Your task to perform on an android device: turn pop-ups on in chrome Image 0: 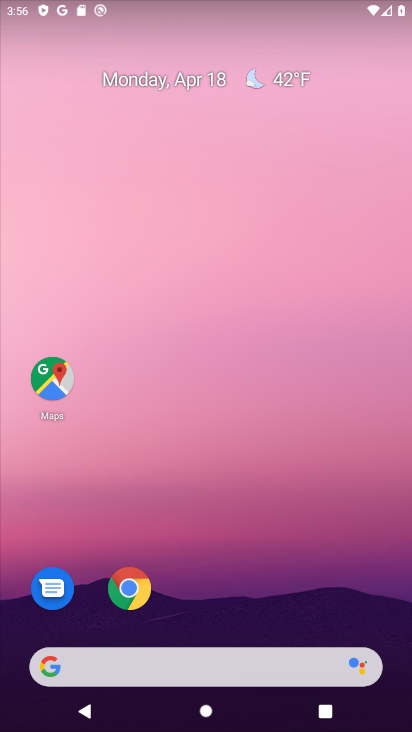
Step 0: click (132, 598)
Your task to perform on an android device: turn pop-ups on in chrome Image 1: 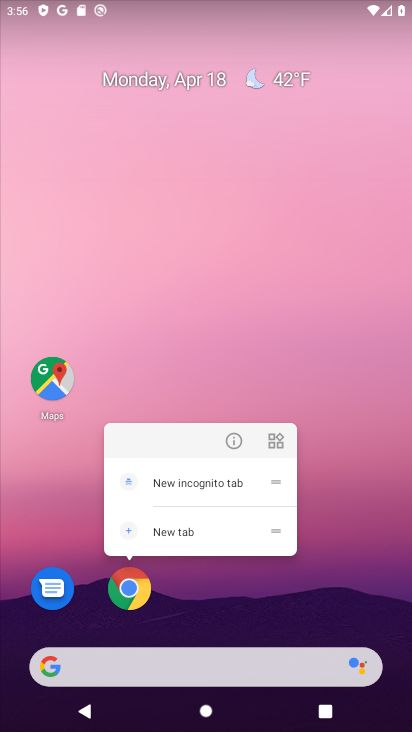
Step 1: click (129, 604)
Your task to perform on an android device: turn pop-ups on in chrome Image 2: 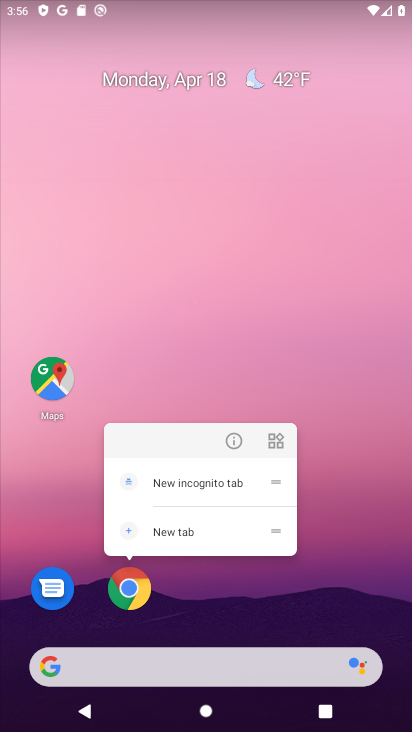
Step 2: click (129, 604)
Your task to perform on an android device: turn pop-ups on in chrome Image 3: 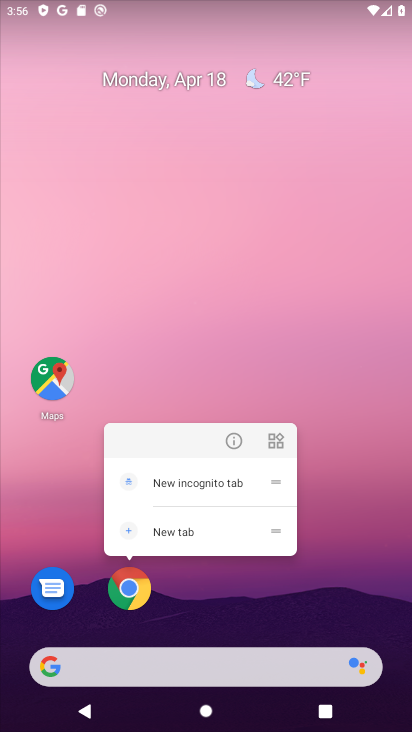
Step 3: click (127, 599)
Your task to perform on an android device: turn pop-ups on in chrome Image 4: 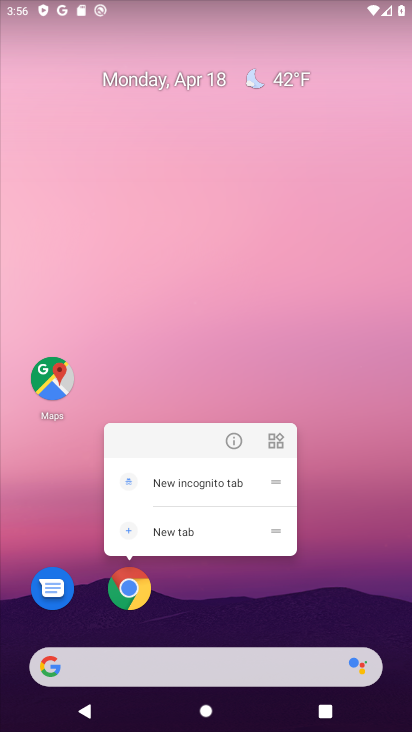
Step 4: click (127, 599)
Your task to perform on an android device: turn pop-ups on in chrome Image 5: 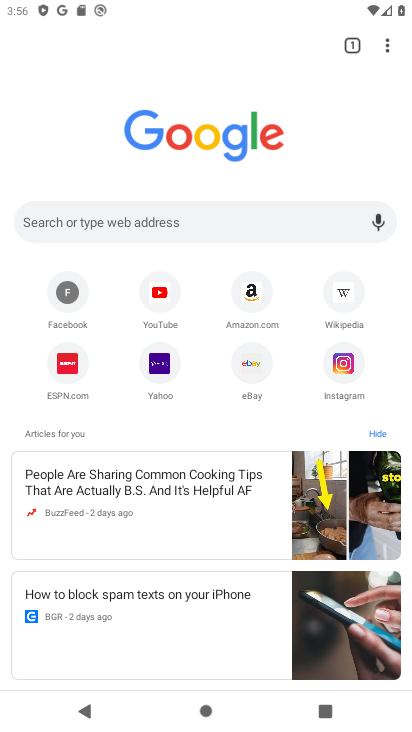
Step 5: drag from (390, 51) to (340, 127)
Your task to perform on an android device: turn pop-ups on in chrome Image 6: 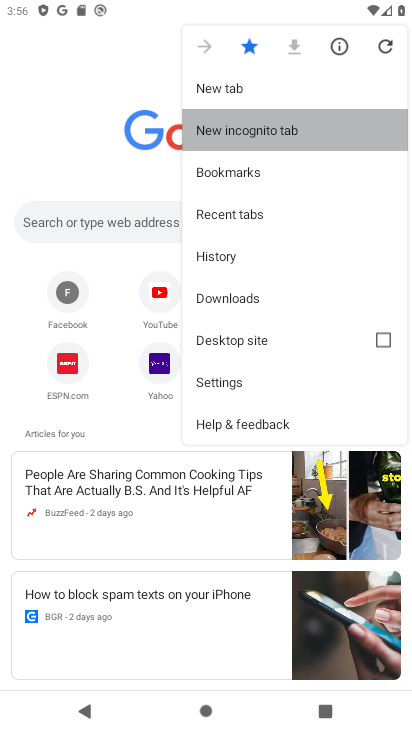
Step 6: drag from (289, 278) to (289, 376)
Your task to perform on an android device: turn pop-ups on in chrome Image 7: 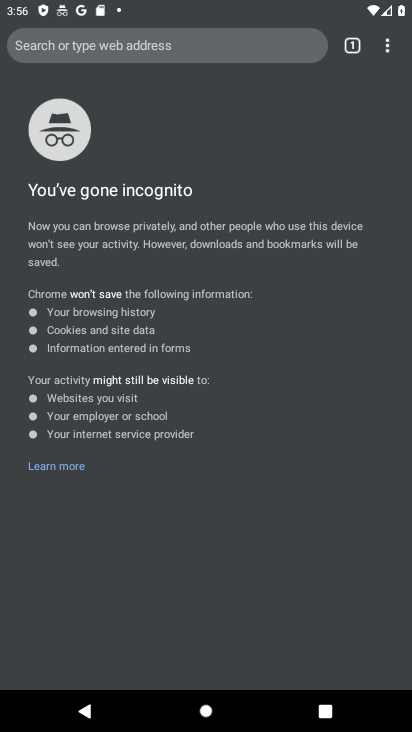
Step 7: click (389, 49)
Your task to perform on an android device: turn pop-ups on in chrome Image 8: 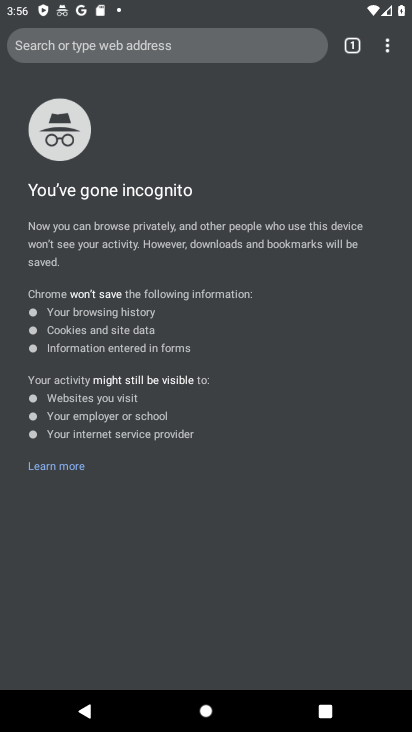
Step 8: drag from (385, 51) to (270, 347)
Your task to perform on an android device: turn pop-ups on in chrome Image 9: 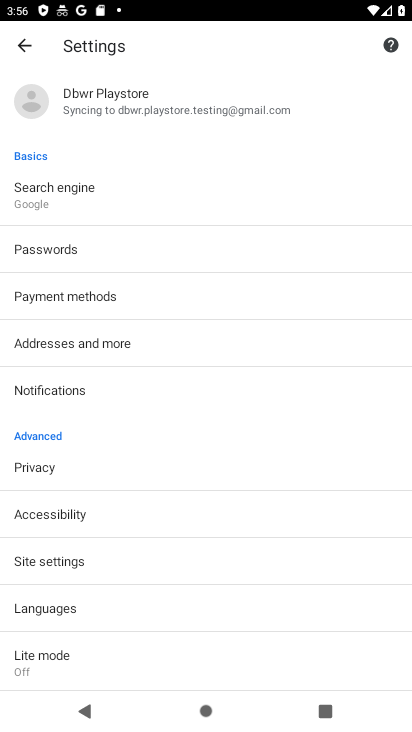
Step 9: click (70, 556)
Your task to perform on an android device: turn pop-ups on in chrome Image 10: 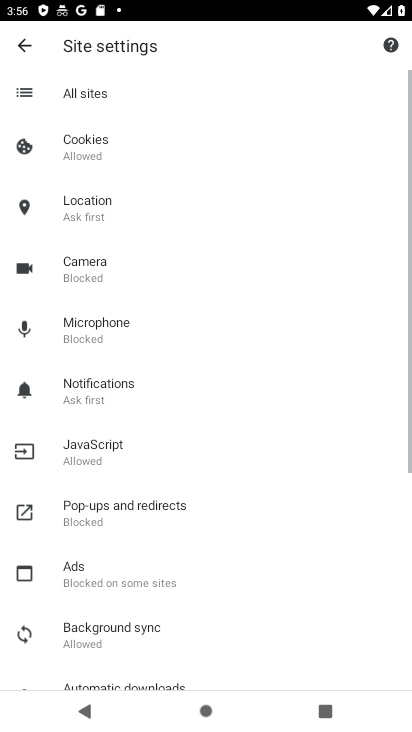
Step 10: click (115, 503)
Your task to perform on an android device: turn pop-ups on in chrome Image 11: 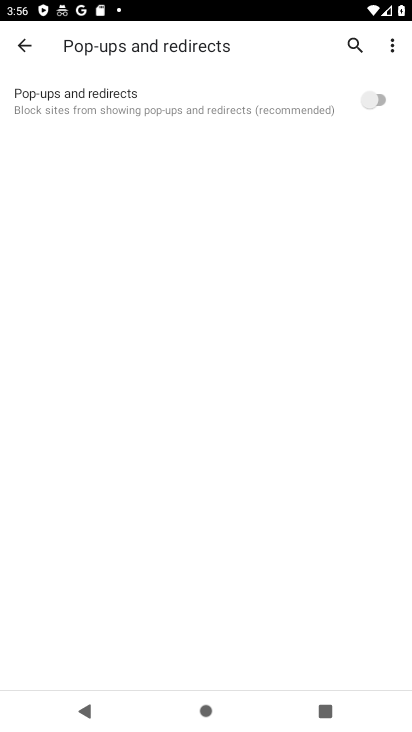
Step 11: click (383, 94)
Your task to perform on an android device: turn pop-ups on in chrome Image 12: 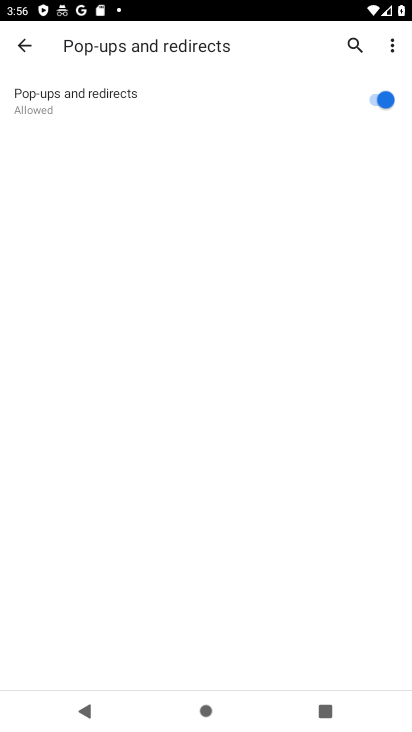
Step 12: task complete